Your task to perform on an android device: turn smart compose on in the gmail app Image 0: 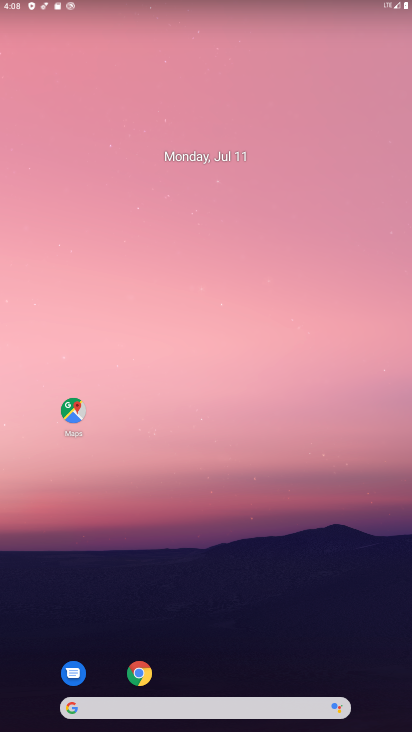
Step 0: drag from (339, 685) to (295, 60)
Your task to perform on an android device: turn smart compose on in the gmail app Image 1: 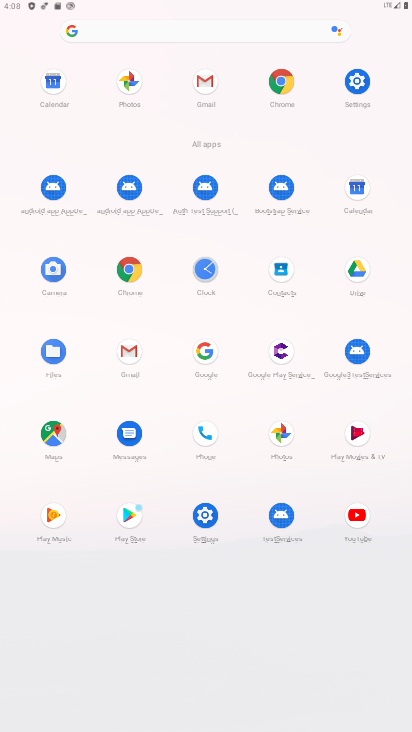
Step 1: click (200, 78)
Your task to perform on an android device: turn smart compose on in the gmail app Image 2: 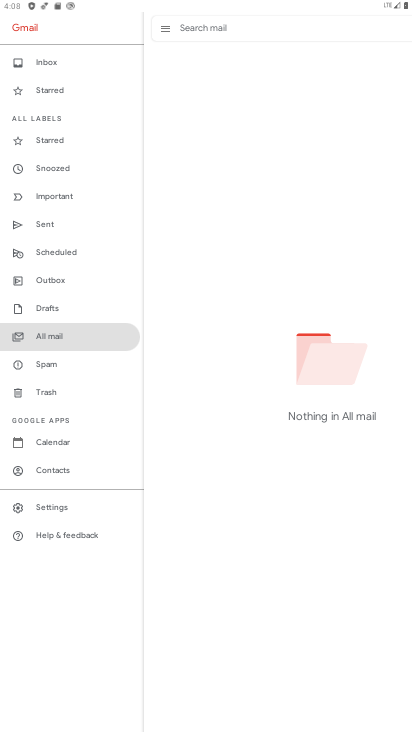
Step 2: click (64, 505)
Your task to perform on an android device: turn smart compose on in the gmail app Image 3: 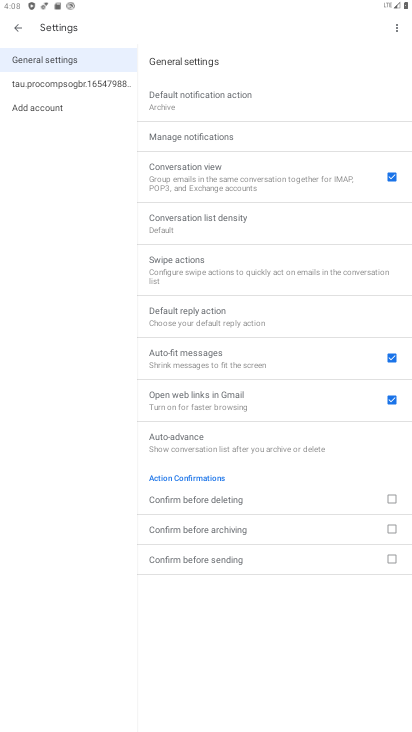
Step 3: click (48, 82)
Your task to perform on an android device: turn smart compose on in the gmail app Image 4: 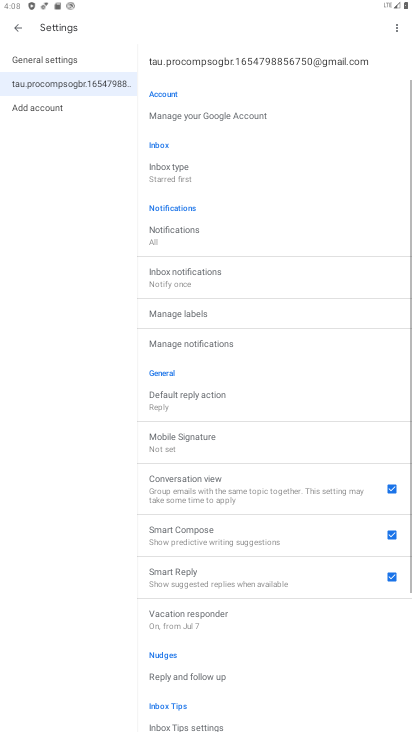
Step 4: task complete